Your task to perform on an android device: Search for the new Nike Air Jordan 33 on Nike.com Image 0: 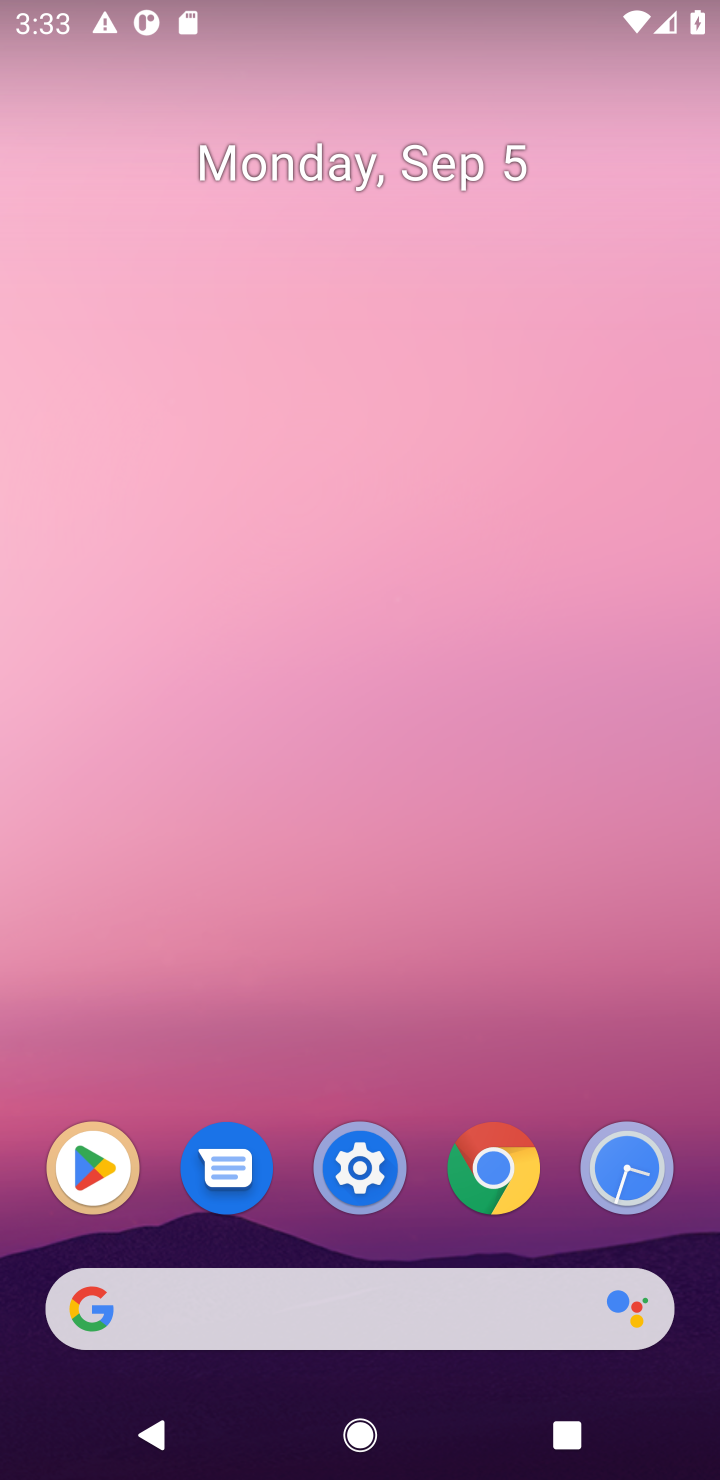
Step 0: click (96, 1191)
Your task to perform on an android device: Search for the new Nike Air Jordan 33 on Nike.com Image 1: 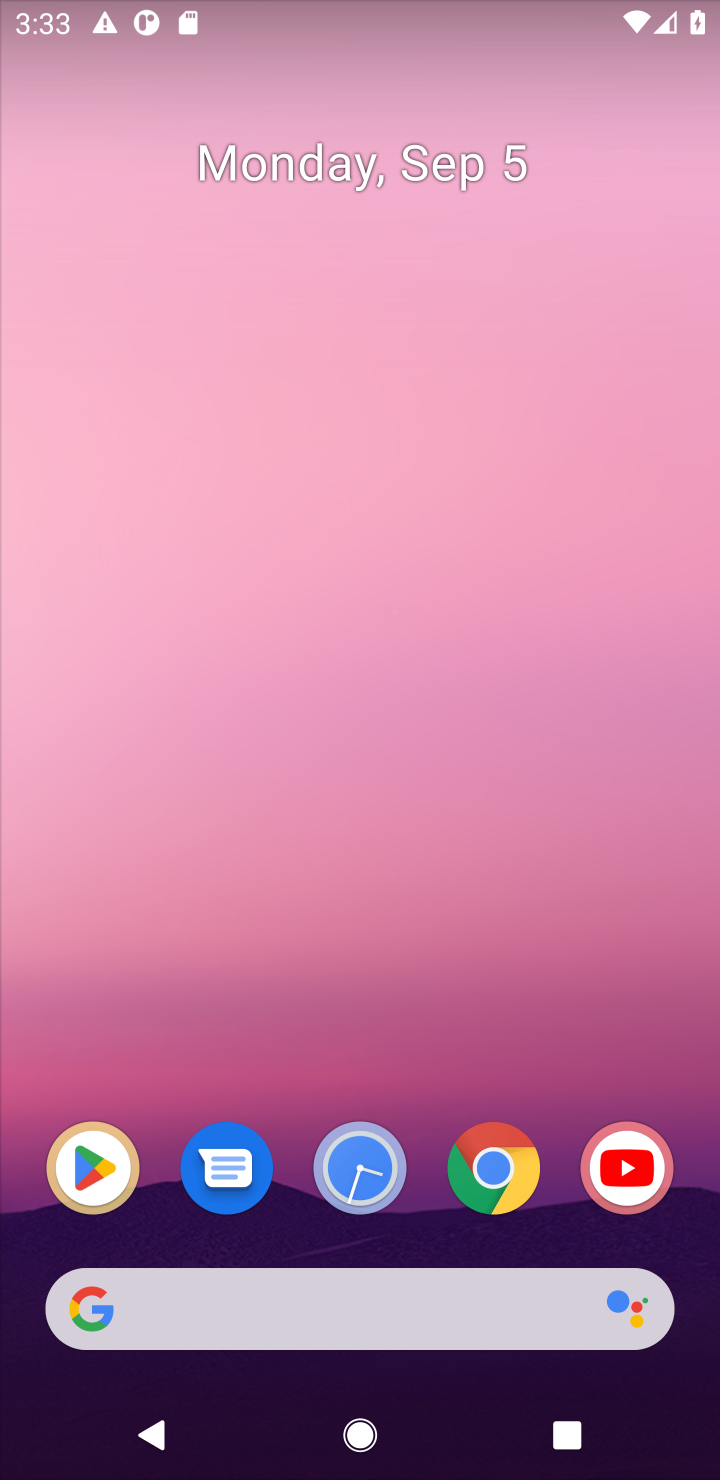
Step 1: task complete